Your task to perform on an android device: choose inbox layout in the gmail app Image 0: 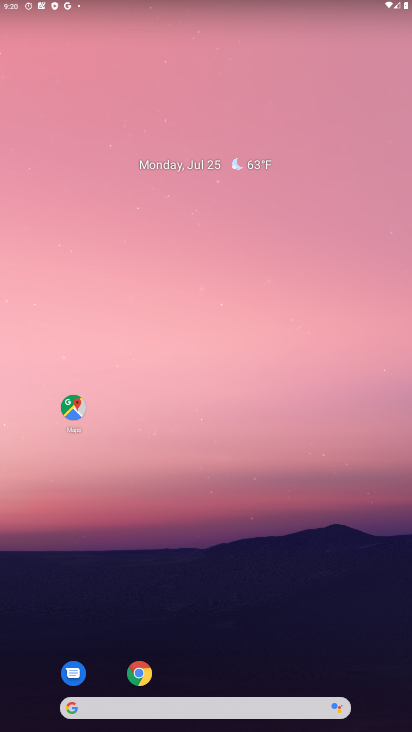
Step 0: drag from (190, 666) to (347, 35)
Your task to perform on an android device: choose inbox layout in the gmail app Image 1: 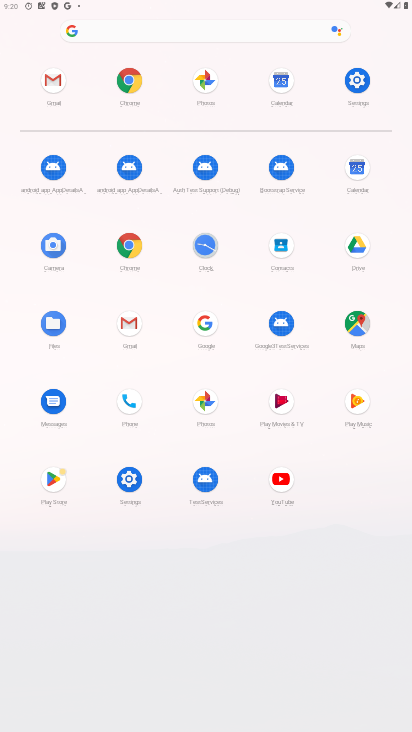
Step 1: click (135, 314)
Your task to perform on an android device: choose inbox layout in the gmail app Image 2: 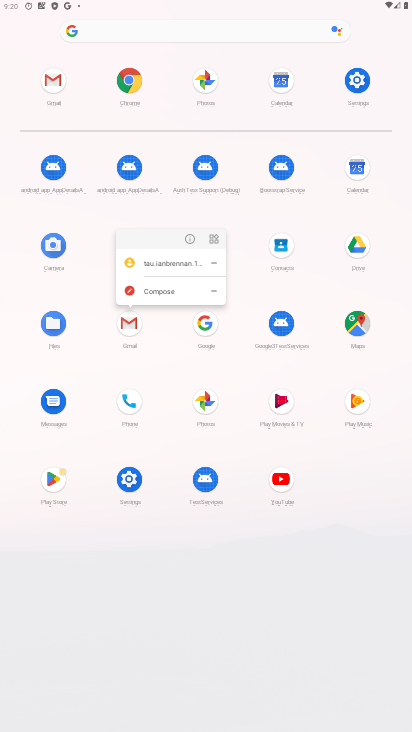
Step 2: click (188, 238)
Your task to perform on an android device: choose inbox layout in the gmail app Image 3: 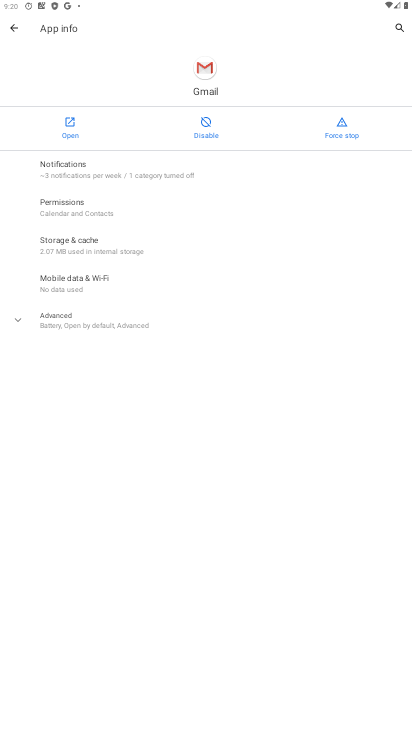
Step 3: click (67, 117)
Your task to perform on an android device: choose inbox layout in the gmail app Image 4: 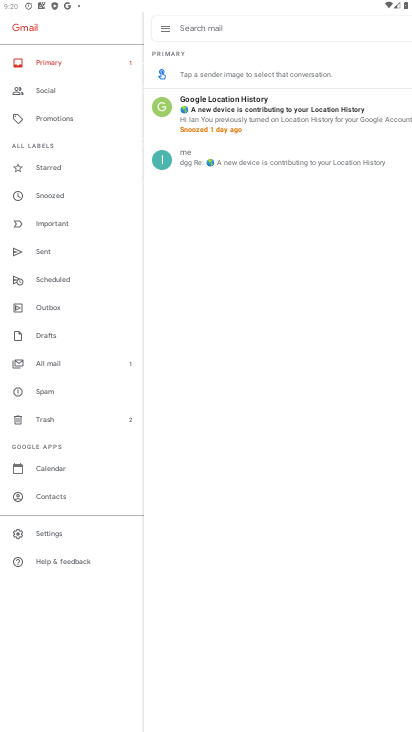
Step 4: click (64, 62)
Your task to perform on an android device: choose inbox layout in the gmail app Image 5: 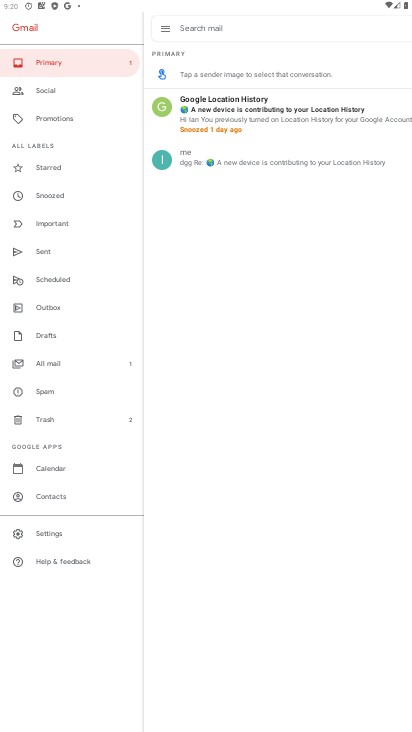
Step 5: click (44, 62)
Your task to perform on an android device: choose inbox layout in the gmail app Image 6: 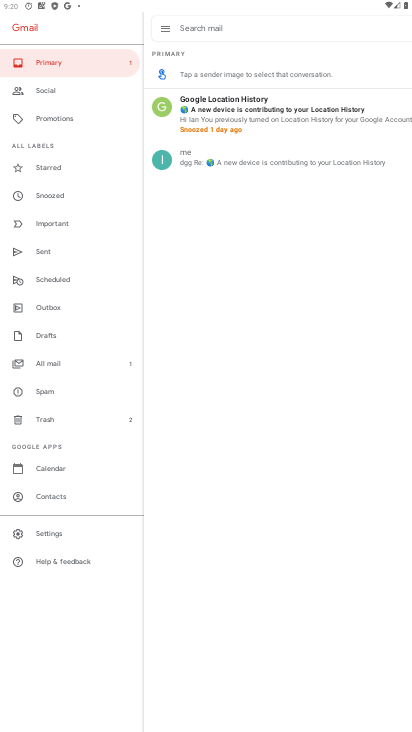
Step 6: task complete